Your task to perform on an android device: Toggle the flashlight Image 0: 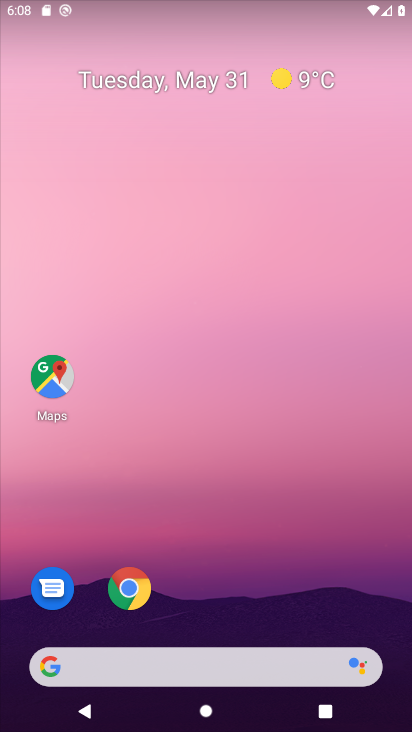
Step 0: drag from (217, 620) to (286, 206)
Your task to perform on an android device: Toggle the flashlight Image 1: 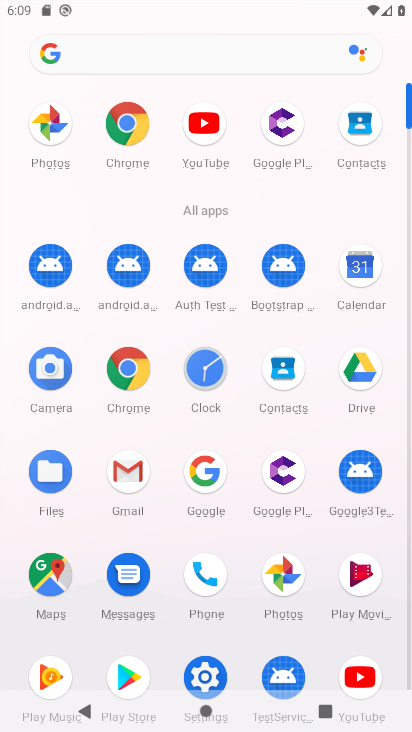
Step 1: task complete